Your task to perform on an android device: change text size in settings app Image 0: 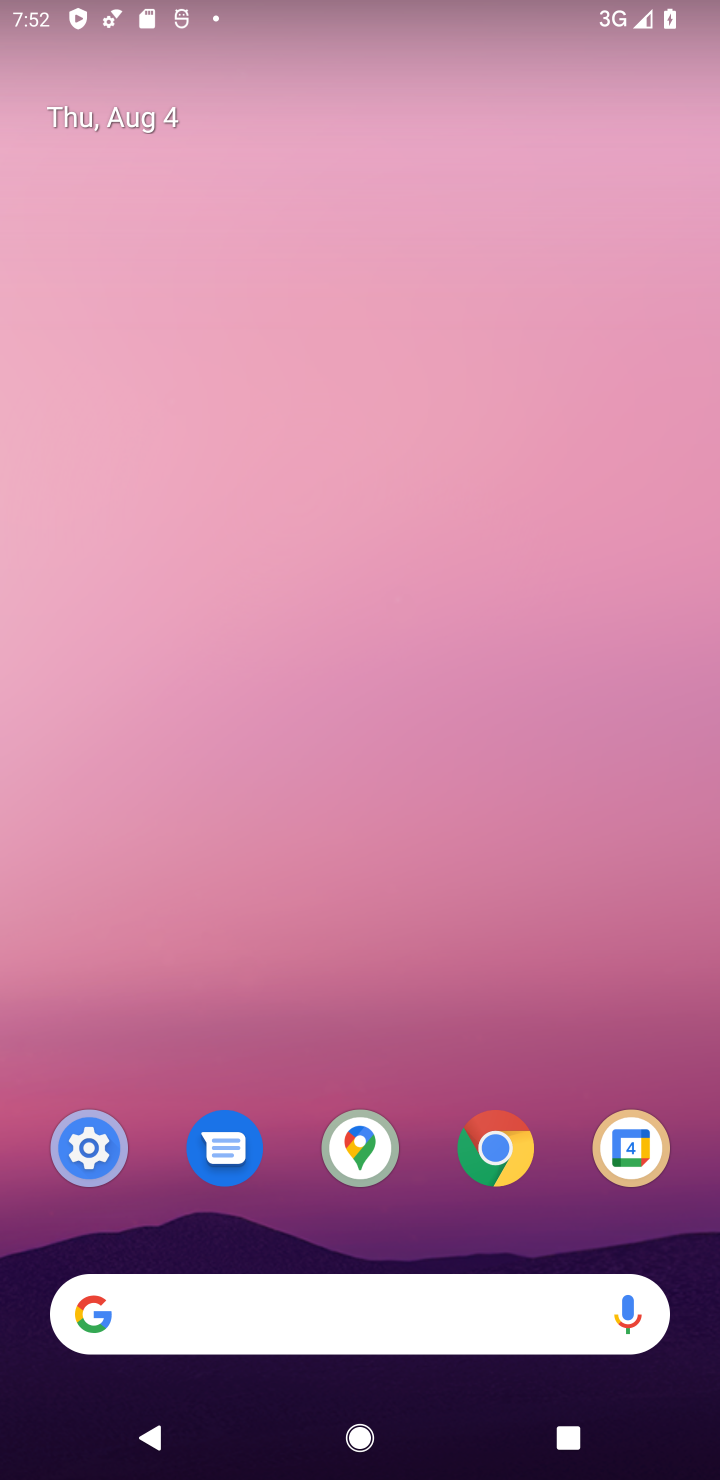
Step 0: click (77, 1154)
Your task to perform on an android device: change text size in settings app Image 1: 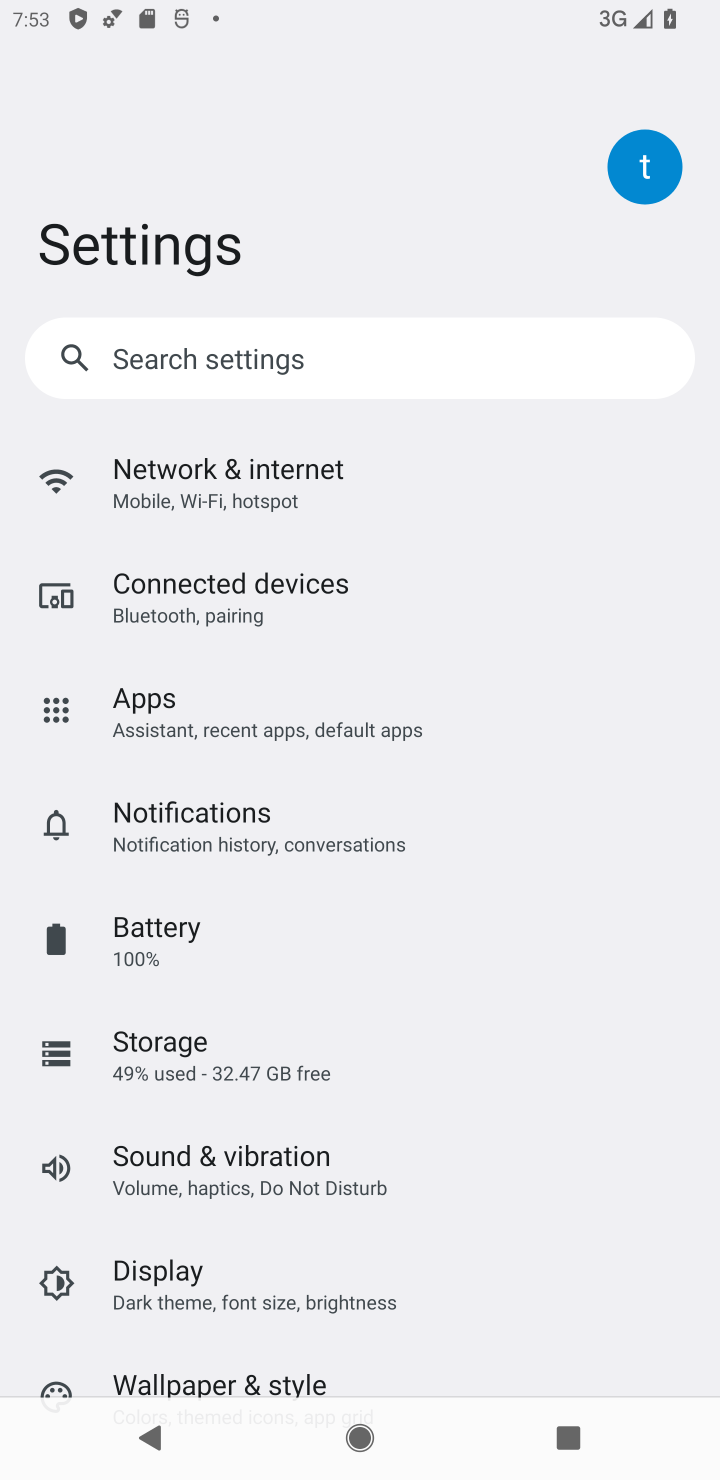
Step 1: click (292, 1296)
Your task to perform on an android device: change text size in settings app Image 2: 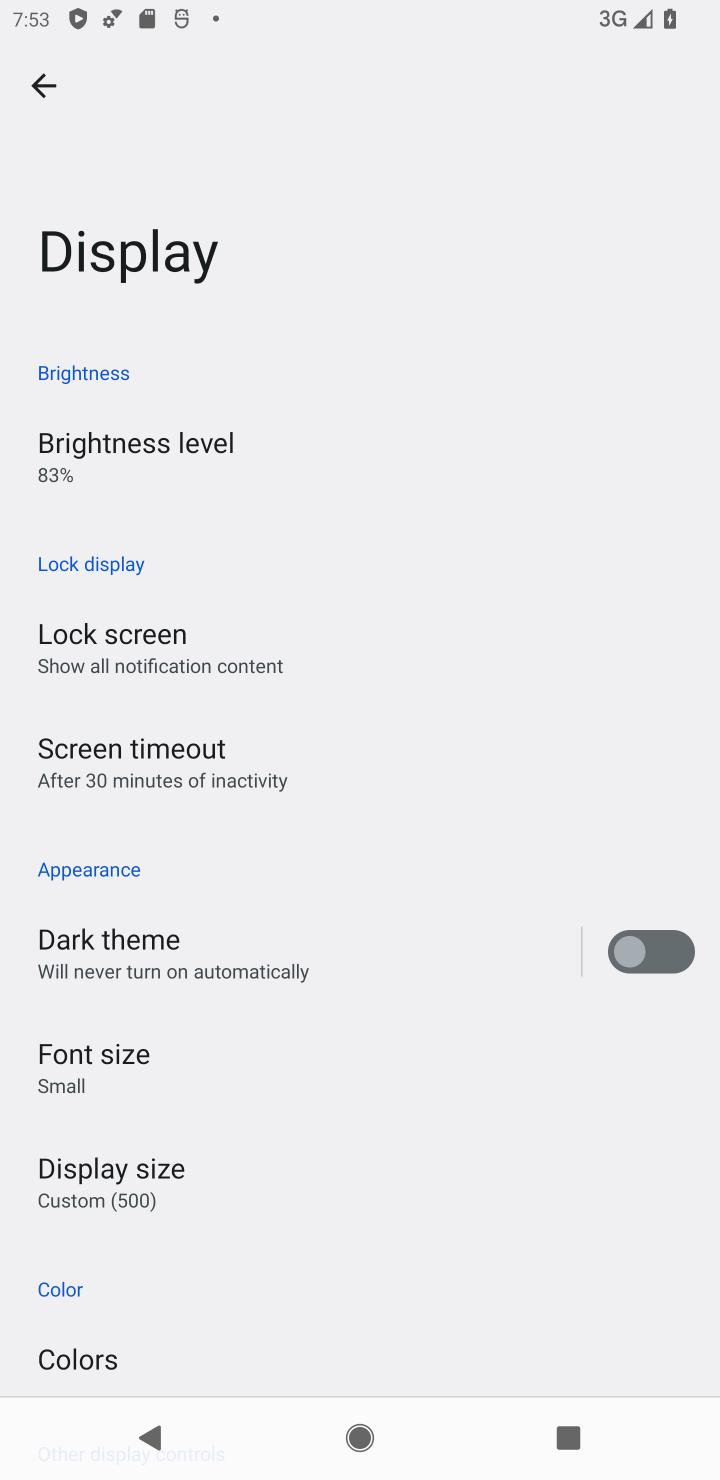
Step 2: click (332, 1078)
Your task to perform on an android device: change text size in settings app Image 3: 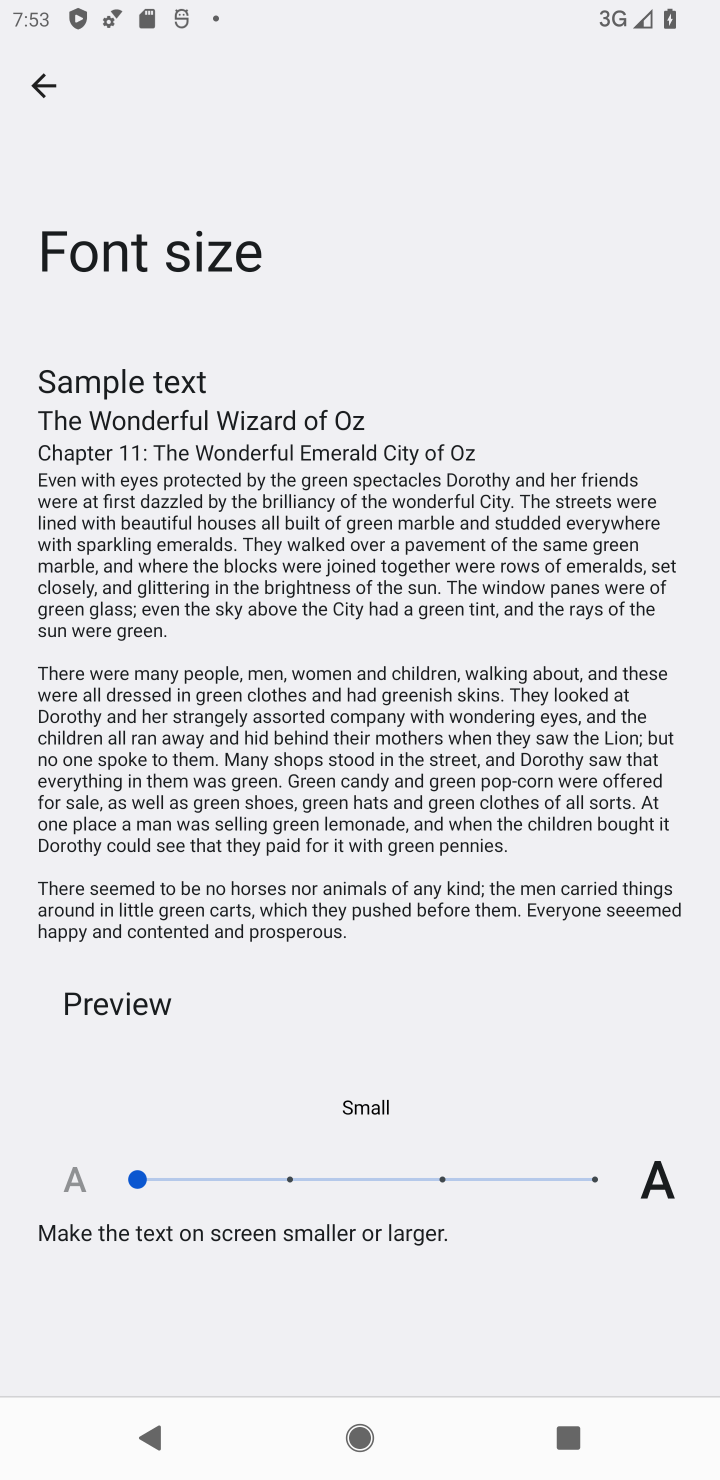
Step 3: click (435, 1185)
Your task to perform on an android device: change text size in settings app Image 4: 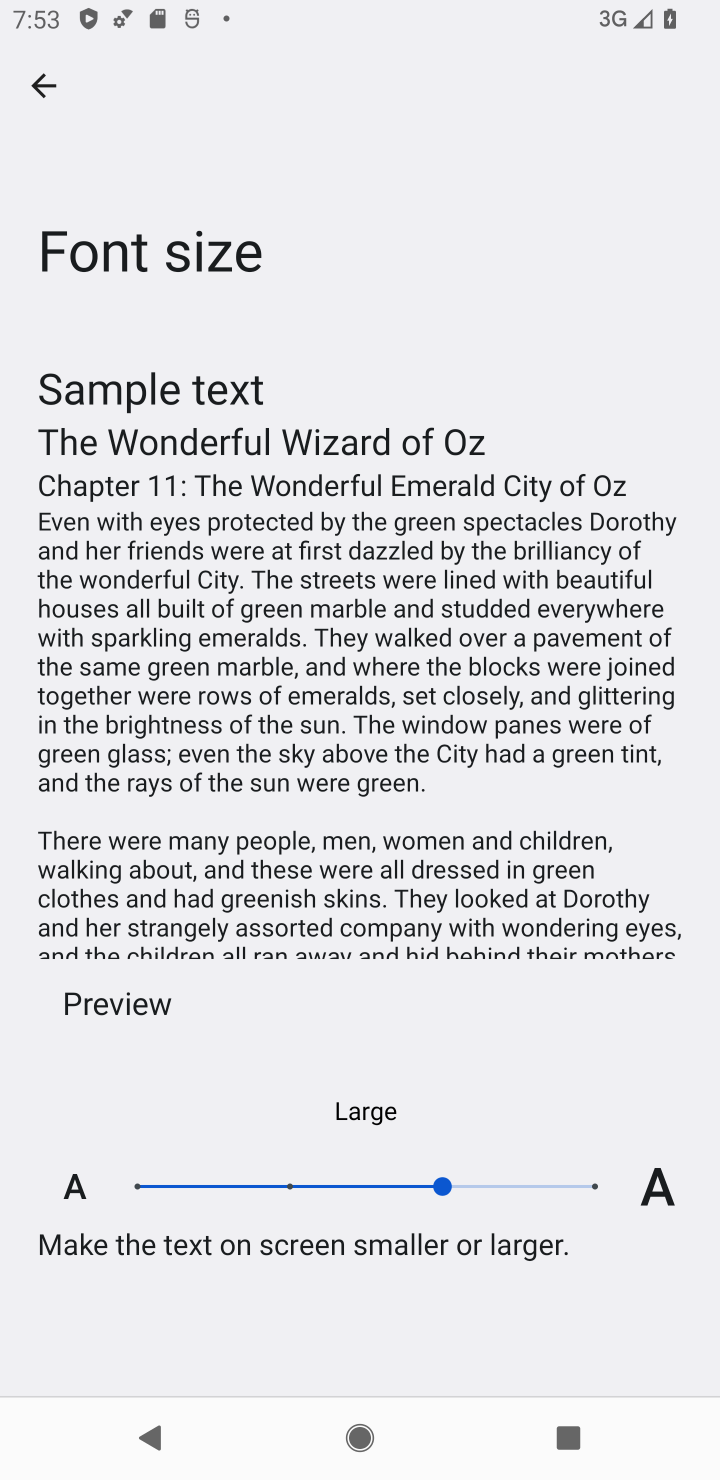
Step 4: task complete